Your task to perform on an android device: Go to wifi settings Image 0: 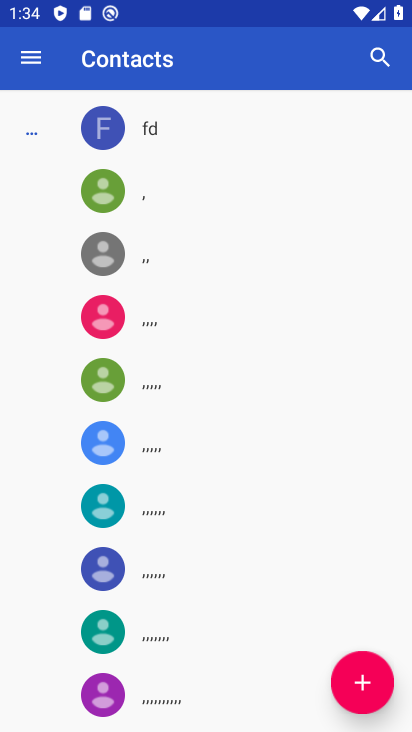
Step 0: press home button
Your task to perform on an android device: Go to wifi settings Image 1: 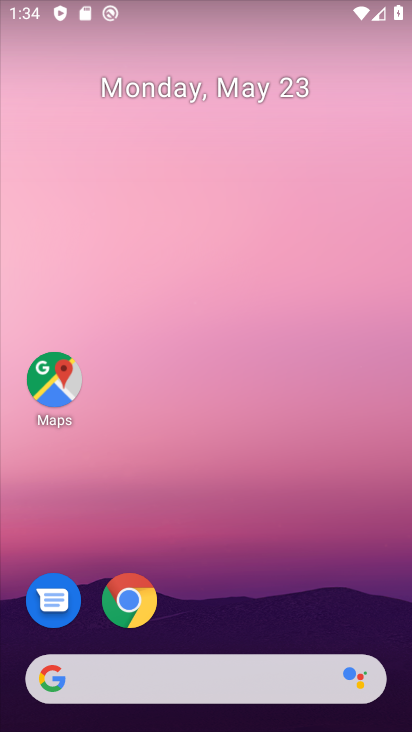
Step 1: drag from (233, 605) to (187, 145)
Your task to perform on an android device: Go to wifi settings Image 2: 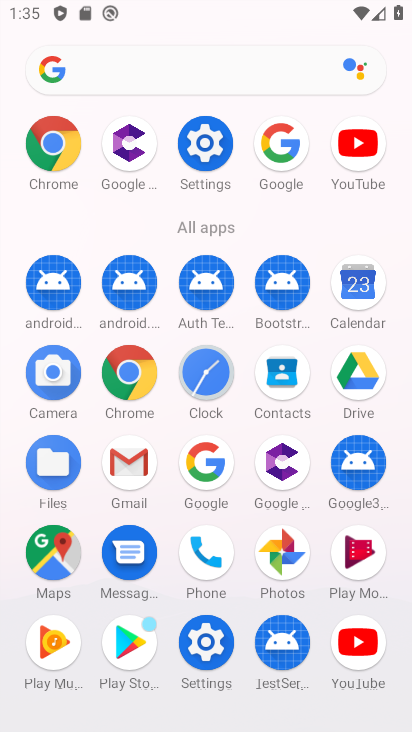
Step 2: click (198, 140)
Your task to perform on an android device: Go to wifi settings Image 3: 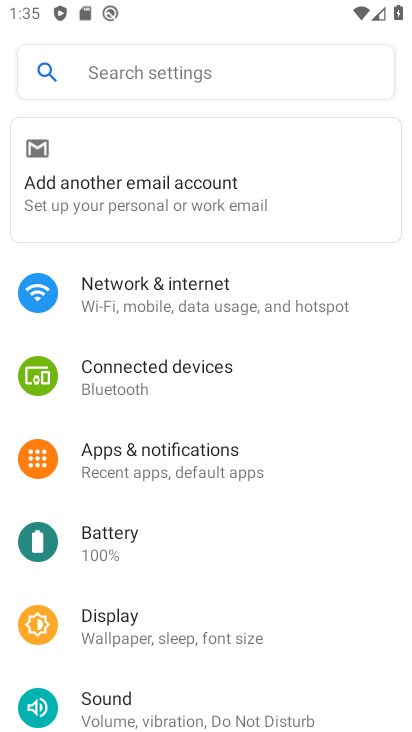
Step 3: click (230, 288)
Your task to perform on an android device: Go to wifi settings Image 4: 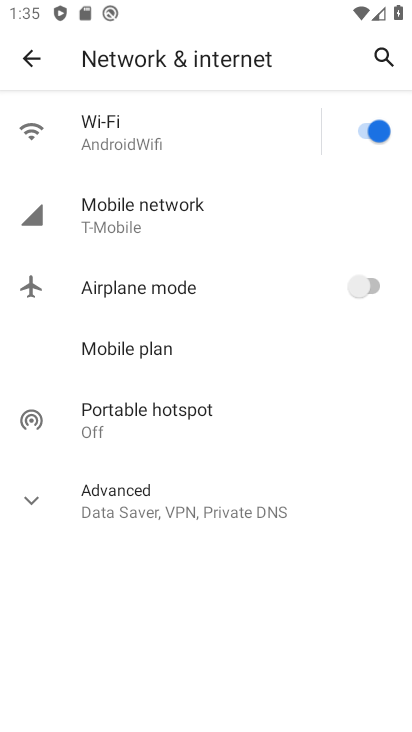
Step 4: click (195, 121)
Your task to perform on an android device: Go to wifi settings Image 5: 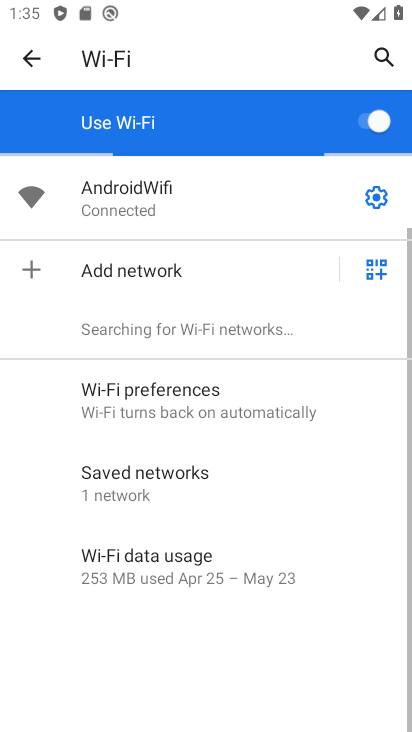
Step 5: task complete